Your task to perform on an android device: turn off location Image 0: 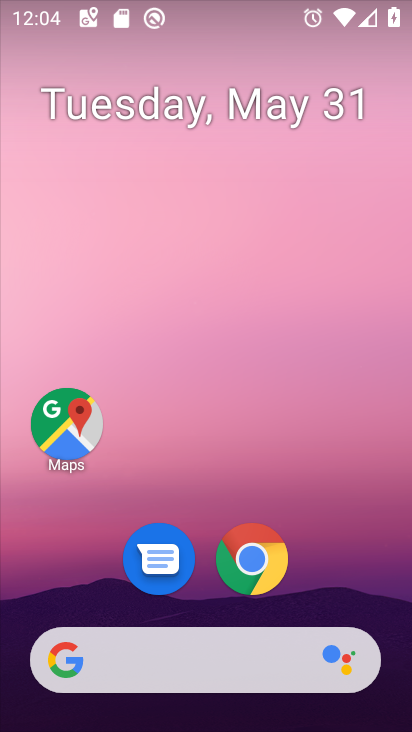
Step 0: drag from (364, 579) to (303, 204)
Your task to perform on an android device: turn off location Image 1: 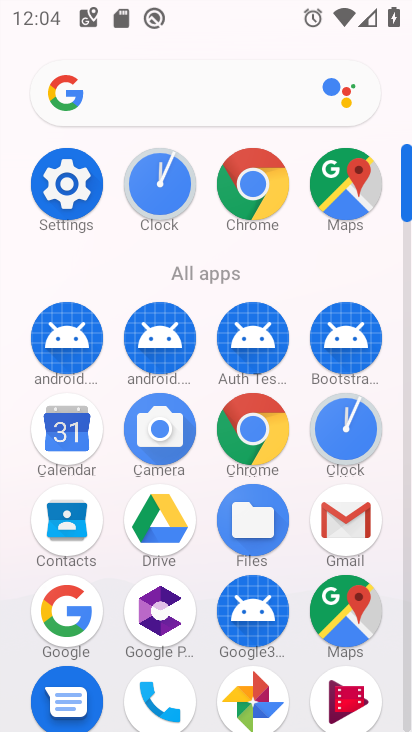
Step 1: click (62, 173)
Your task to perform on an android device: turn off location Image 2: 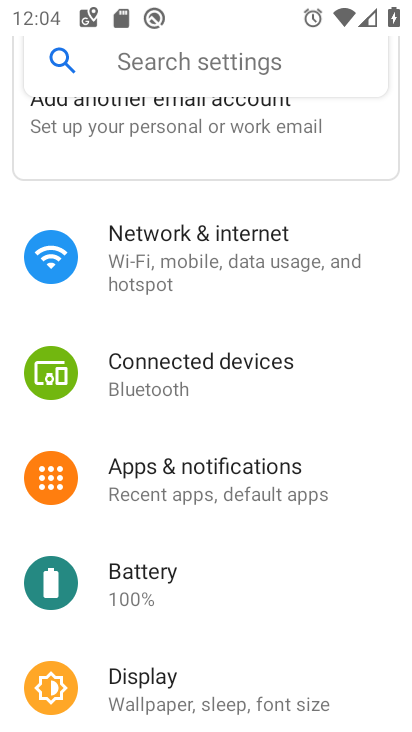
Step 2: drag from (254, 671) to (207, 347)
Your task to perform on an android device: turn off location Image 3: 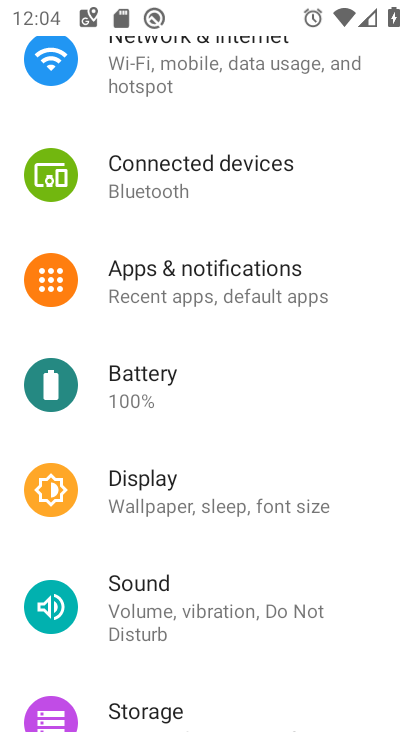
Step 3: drag from (249, 659) to (208, 239)
Your task to perform on an android device: turn off location Image 4: 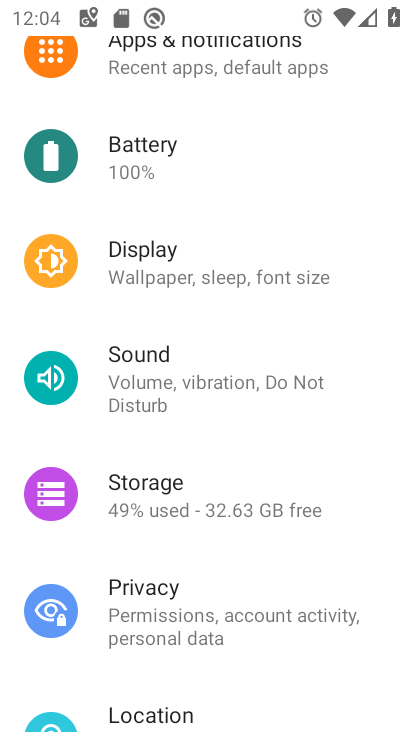
Step 4: drag from (219, 565) to (232, 240)
Your task to perform on an android device: turn off location Image 5: 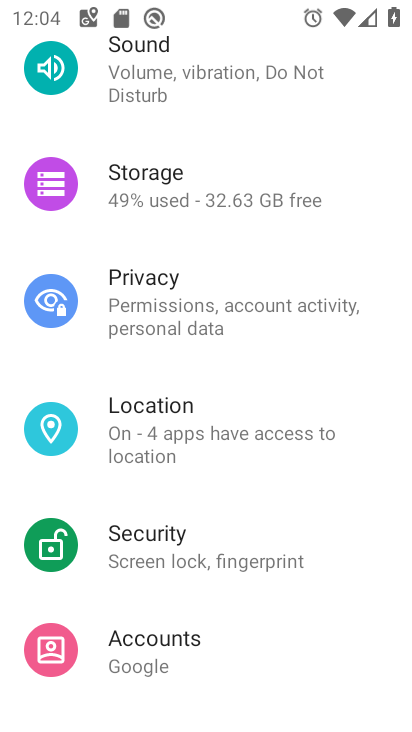
Step 5: click (225, 437)
Your task to perform on an android device: turn off location Image 6: 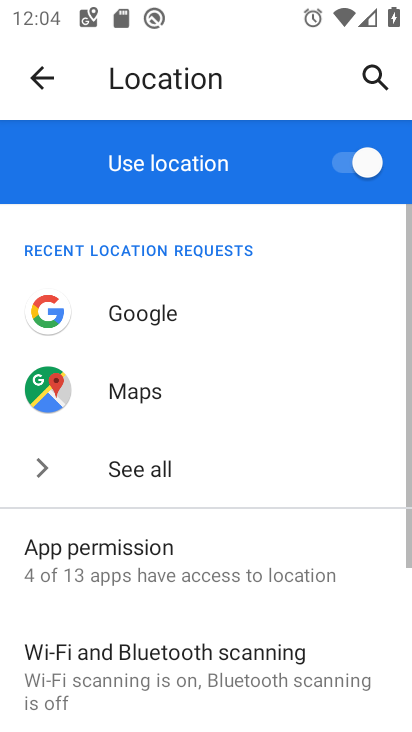
Step 6: drag from (252, 593) to (238, 382)
Your task to perform on an android device: turn off location Image 7: 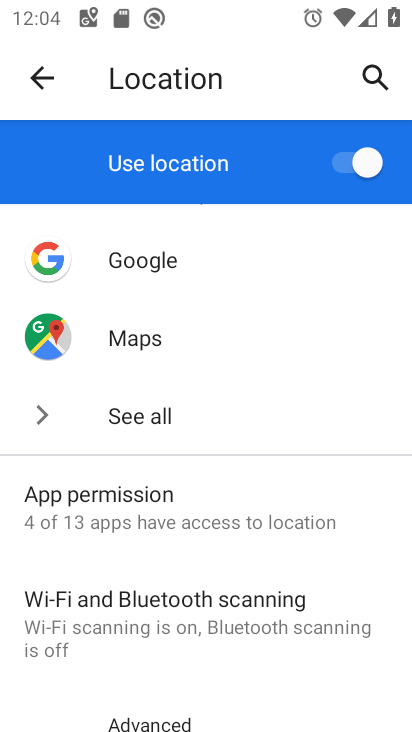
Step 7: click (354, 174)
Your task to perform on an android device: turn off location Image 8: 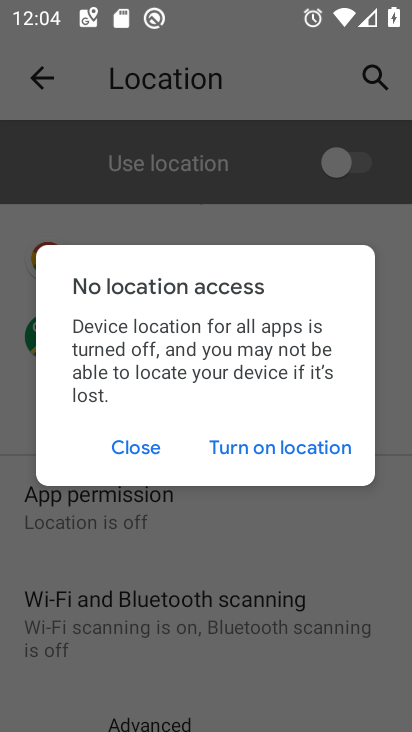
Step 8: click (138, 442)
Your task to perform on an android device: turn off location Image 9: 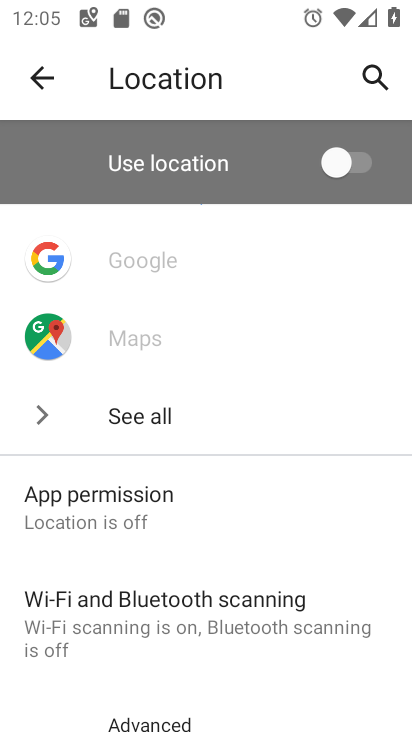
Step 9: task complete